Your task to perform on an android device: add a label to a message in the gmail app Image 0: 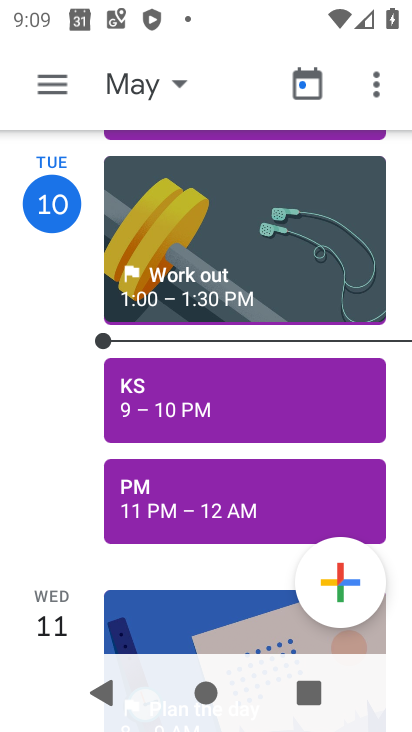
Step 0: press home button
Your task to perform on an android device: add a label to a message in the gmail app Image 1: 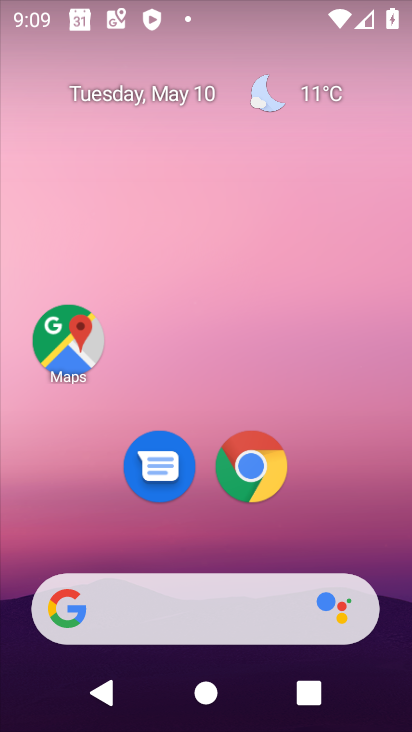
Step 1: drag from (363, 542) to (390, 37)
Your task to perform on an android device: add a label to a message in the gmail app Image 2: 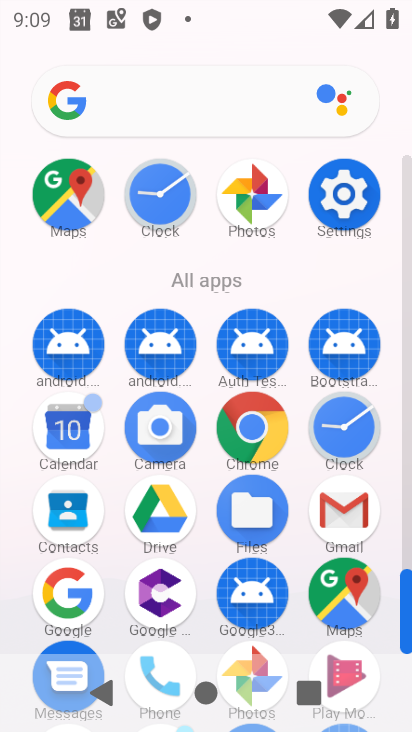
Step 2: click (351, 507)
Your task to perform on an android device: add a label to a message in the gmail app Image 3: 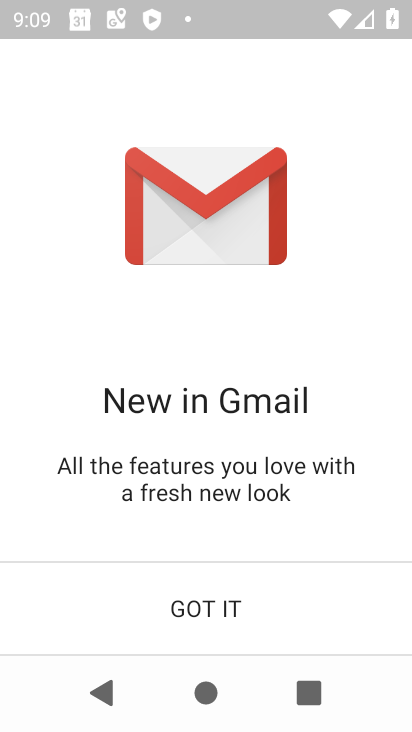
Step 3: click (217, 578)
Your task to perform on an android device: add a label to a message in the gmail app Image 4: 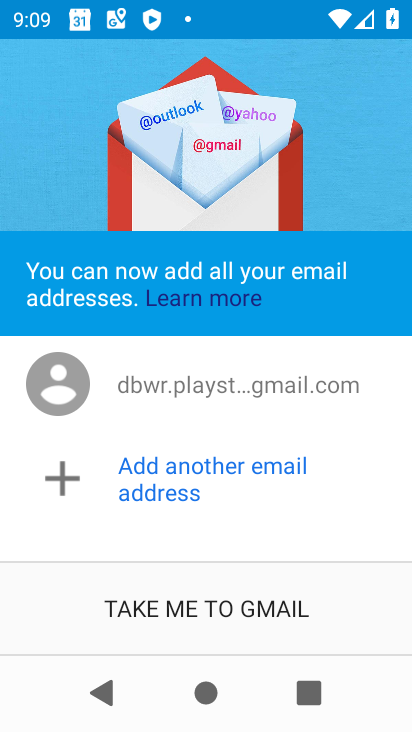
Step 4: click (186, 618)
Your task to perform on an android device: add a label to a message in the gmail app Image 5: 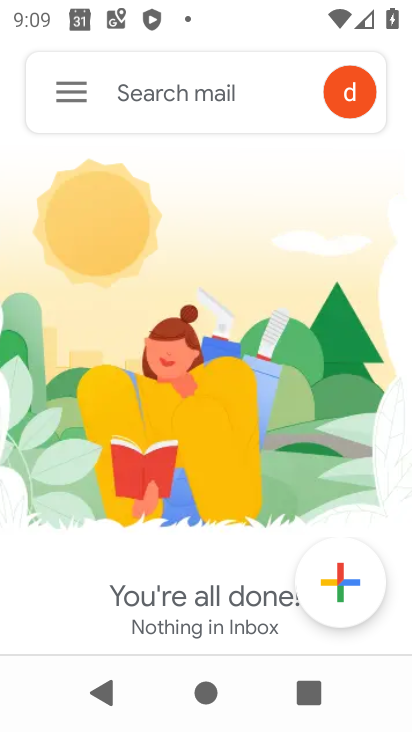
Step 5: task complete